Your task to perform on an android device: set the timer Image 0: 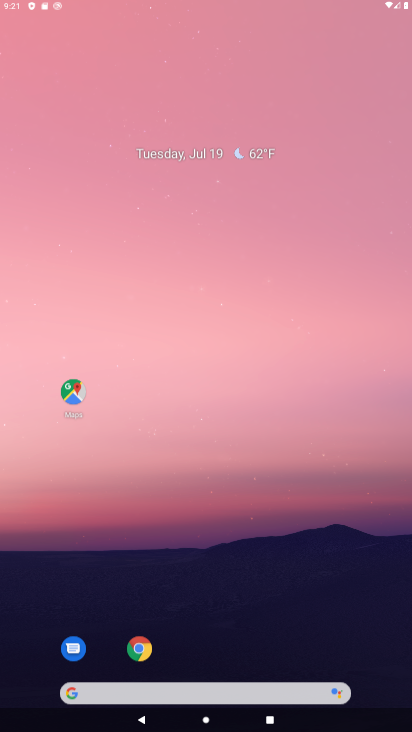
Step 0: drag from (202, 522) to (227, 87)
Your task to perform on an android device: set the timer Image 1: 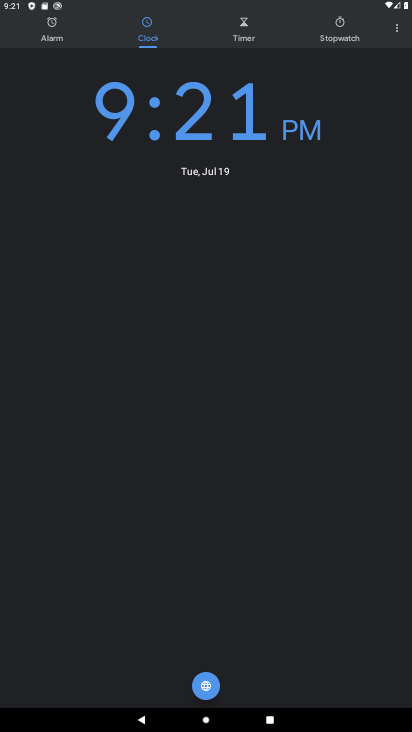
Step 1: press home button
Your task to perform on an android device: set the timer Image 2: 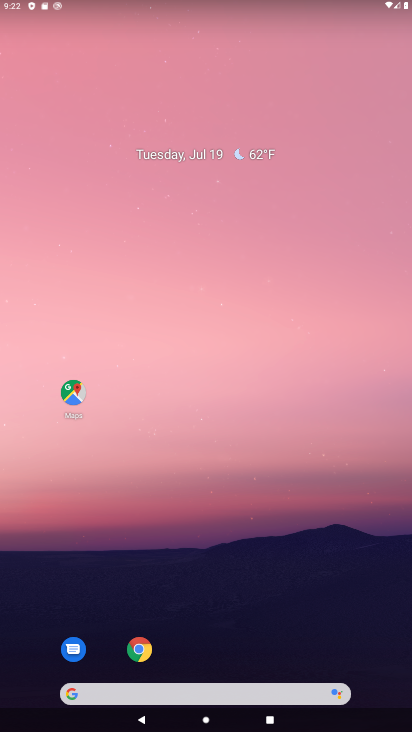
Step 2: drag from (156, 695) to (199, 26)
Your task to perform on an android device: set the timer Image 3: 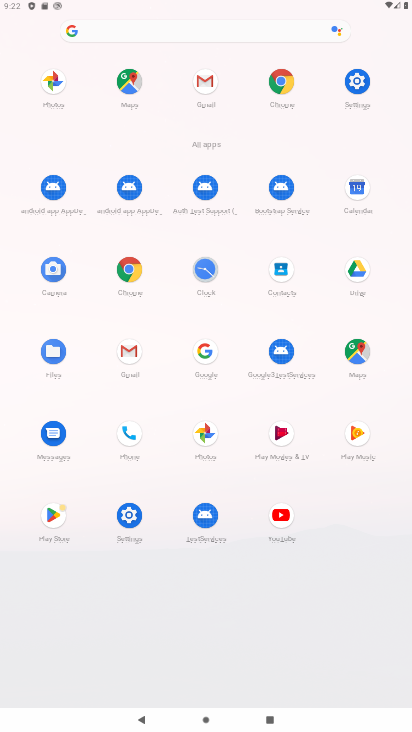
Step 3: click (204, 264)
Your task to perform on an android device: set the timer Image 4: 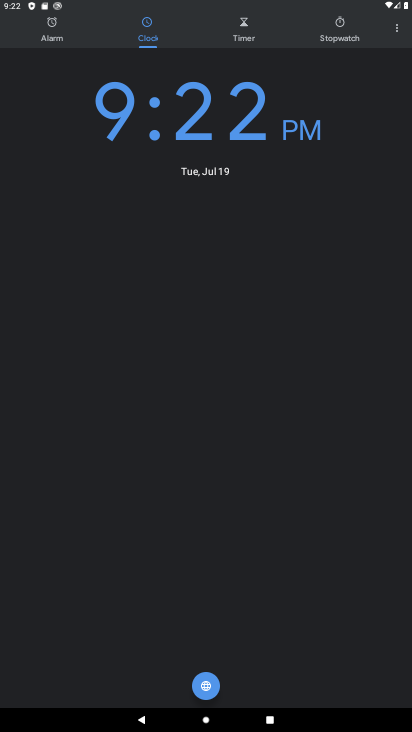
Step 4: click (223, 27)
Your task to perform on an android device: set the timer Image 5: 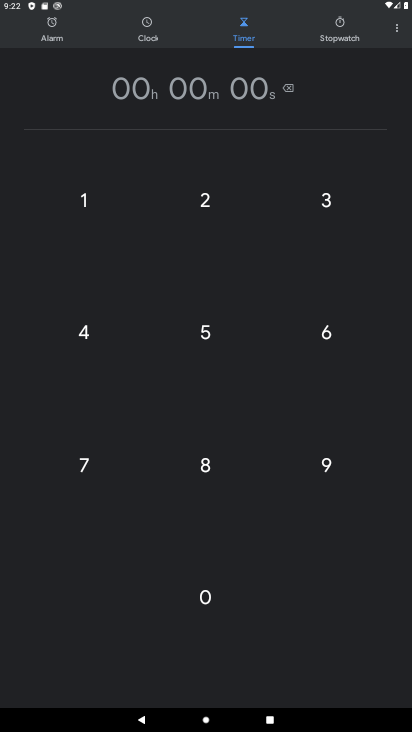
Step 5: click (321, 461)
Your task to perform on an android device: set the timer Image 6: 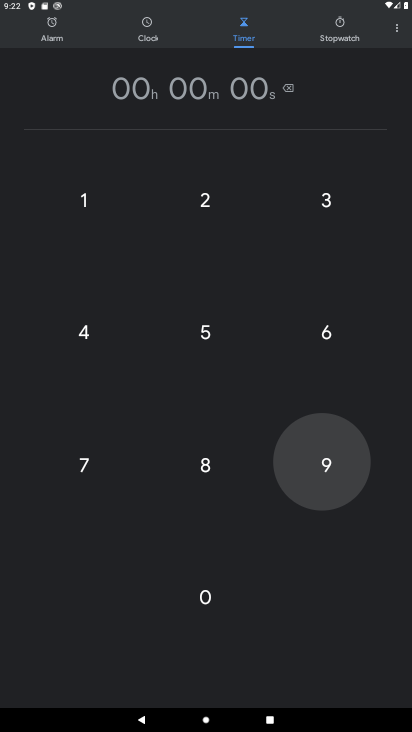
Step 6: click (321, 461)
Your task to perform on an android device: set the timer Image 7: 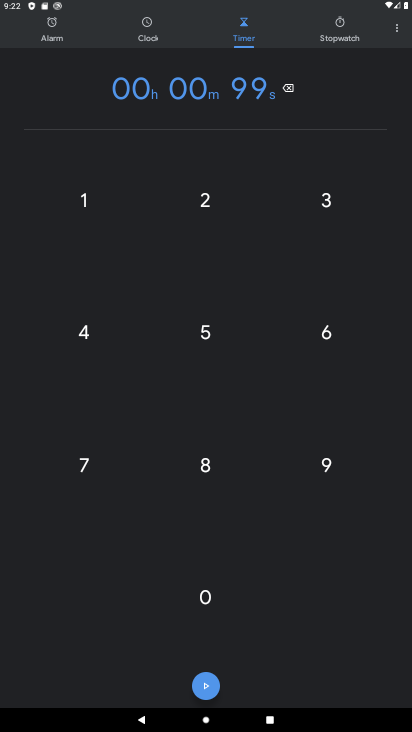
Step 7: click (321, 461)
Your task to perform on an android device: set the timer Image 8: 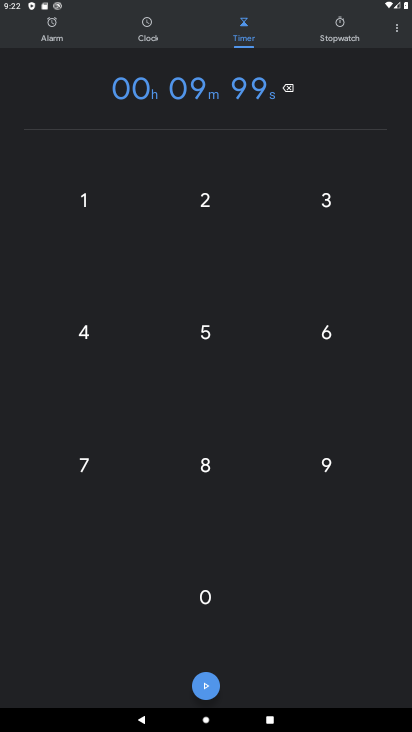
Step 8: click (321, 461)
Your task to perform on an android device: set the timer Image 9: 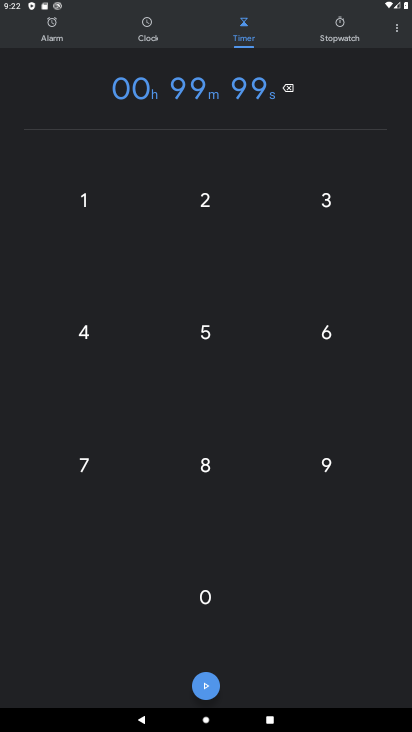
Step 9: click (321, 461)
Your task to perform on an android device: set the timer Image 10: 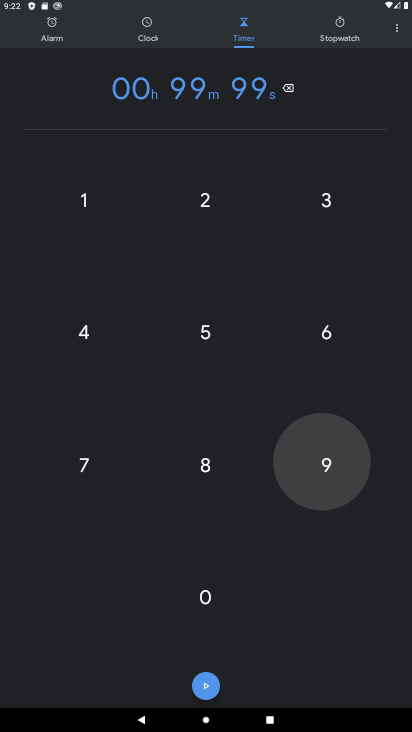
Step 10: click (321, 461)
Your task to perform on an android device: set the timer Image 11: 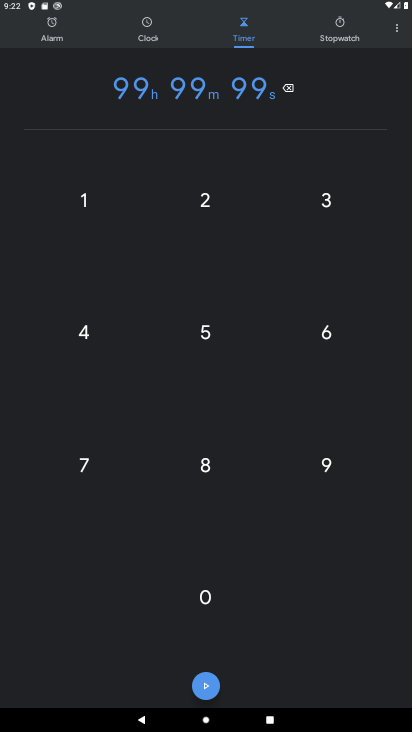
Step 11: click (211, 681)
Your task to perform on an android device: set the timer Image 12: 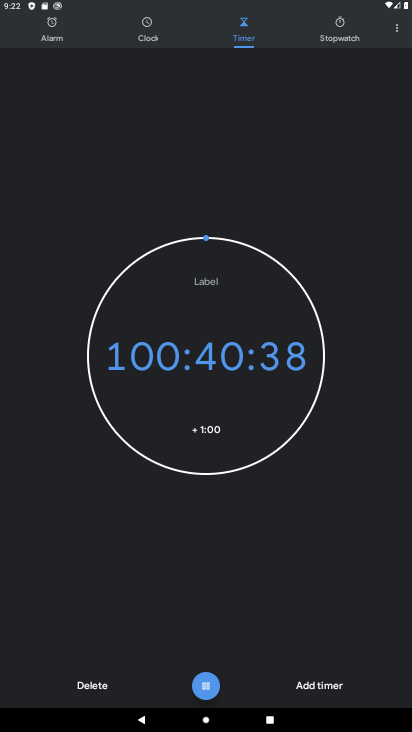
Step 12: task complete